Your task to perform on an android device: turn on notifications settings in the gmail app Image 0: 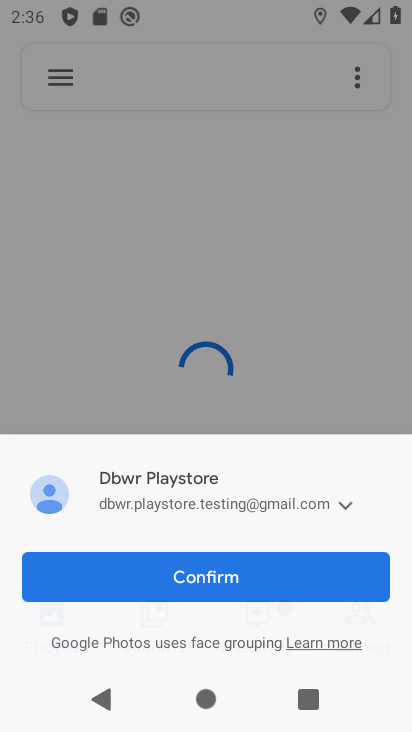
Step 0: press home button
Your task to perform on an android device: turn on notifications settings in the gmail app Image 1: 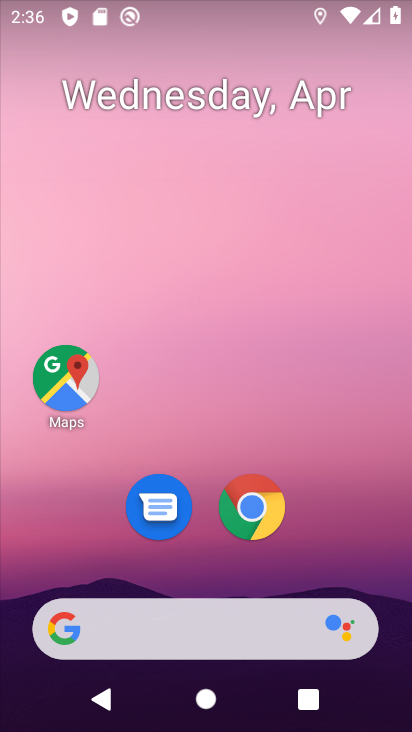
Step 1: drag from (317, 538) to (17, 51)
Your task to perform on an android device: turn on notifications settings in the gmail app Image 2: 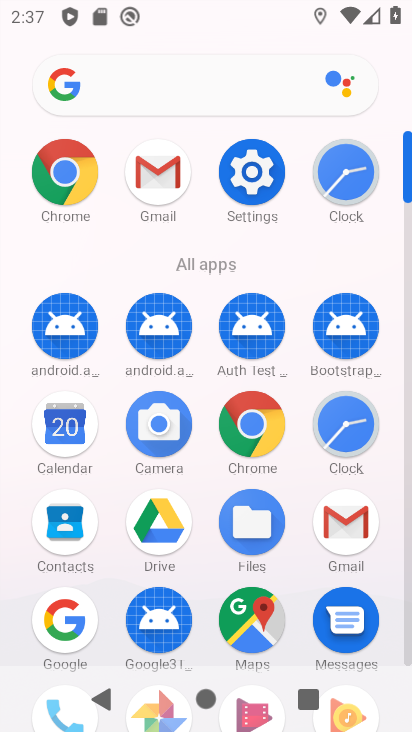
Step 2: click (338, 530)
Your task to perform on an android device: turn on notifications settings in the gmail app Image 3: 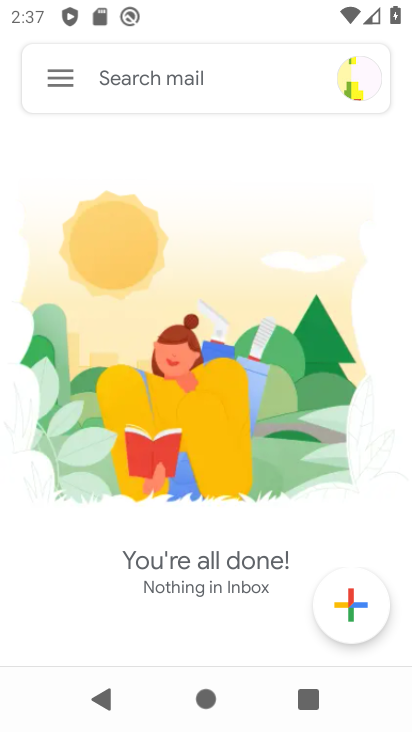
Step 3: click (46, 77)
Your task to perform on an android device: turn on notifications settings in the gmail app Image 4: 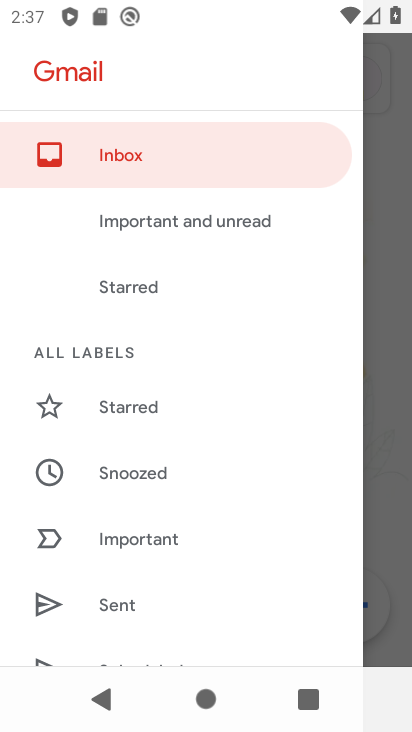
Step 4: drag from (140, 625) to (99, 108)
Your task to perform on an android device: turn on notifications settings in the gmail app Image 5: 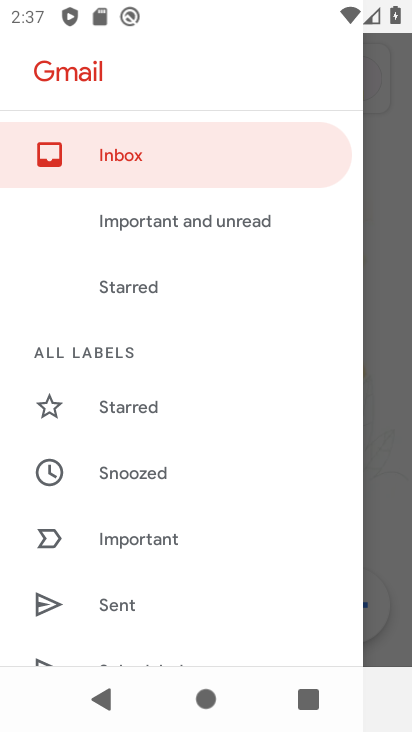
Step 5: drag from (185, 641) to (160, 111)
Your task to perform on an android device: turn on notifications settings in the gmail app Image 6: 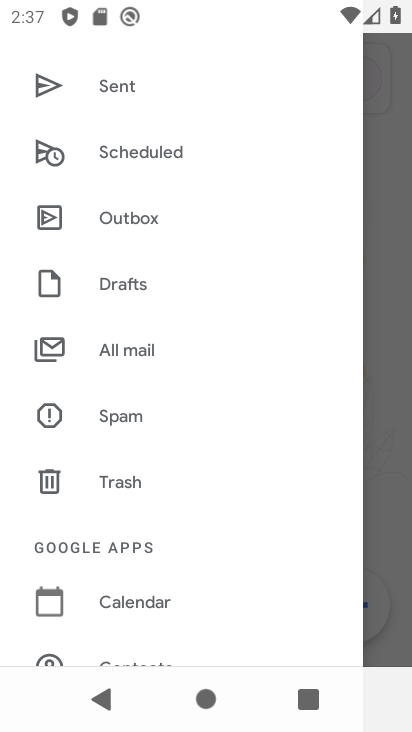
Step 6: drag from (136, 636) to (118, 120)
Your task to perform on an android device: turn on notifications settings in the gmail app Image 7: 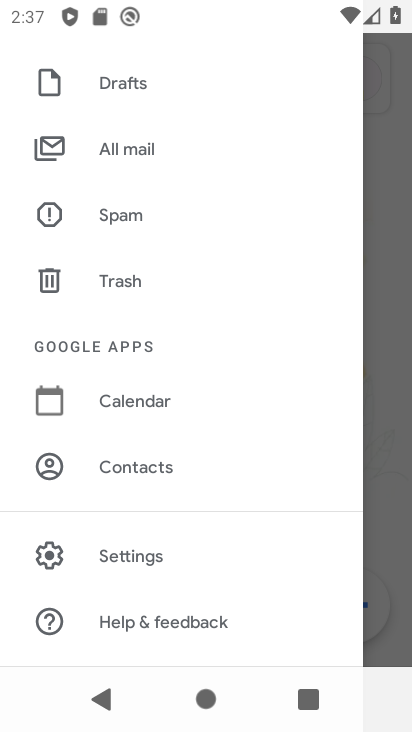
Step 7: click (141, 559)
Your task to perform on an android device: turn on notifications settings in the gmail app Image 8: 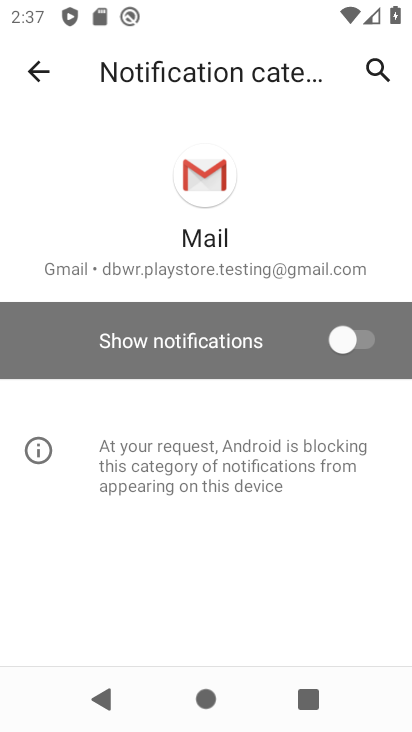
Step 8: click (353, 339)
Your task to perform on an android device: turn on notifications settings in the gmail app Image 9: 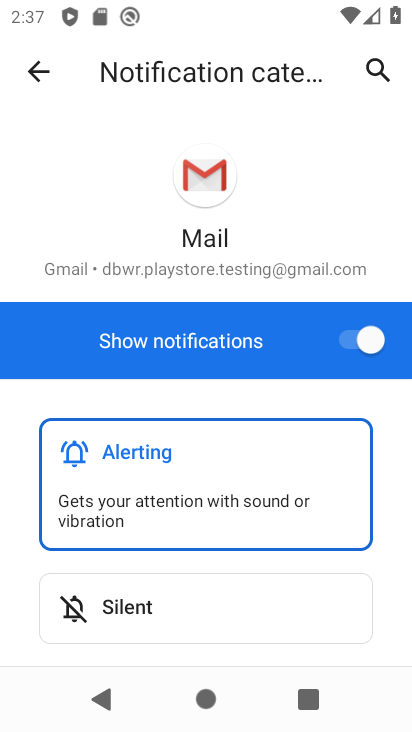
Step 9: task complete